Your task to perform on an android device: Empty the shopping cart on costco.com. Search for "apple airpods pro" on costco.com, select the first entry, and add it to the cart. Image 0: 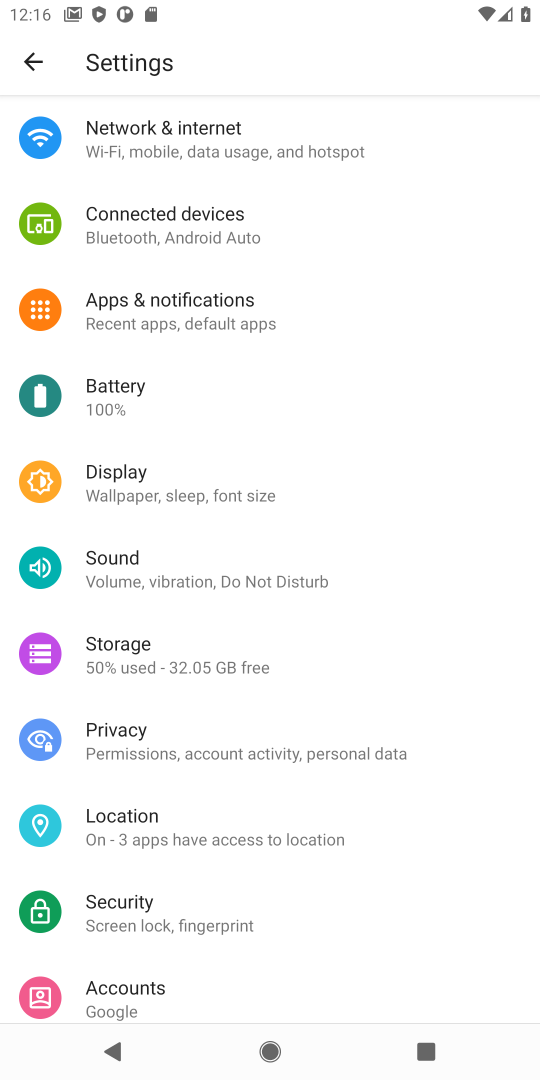
Step 0: press home button
Your task to perform on an android device: Empty the shopping cart on costco.com. Search for "apple airpods pro" on costco.com, select the first entry, and add it to the cart. Image 1: 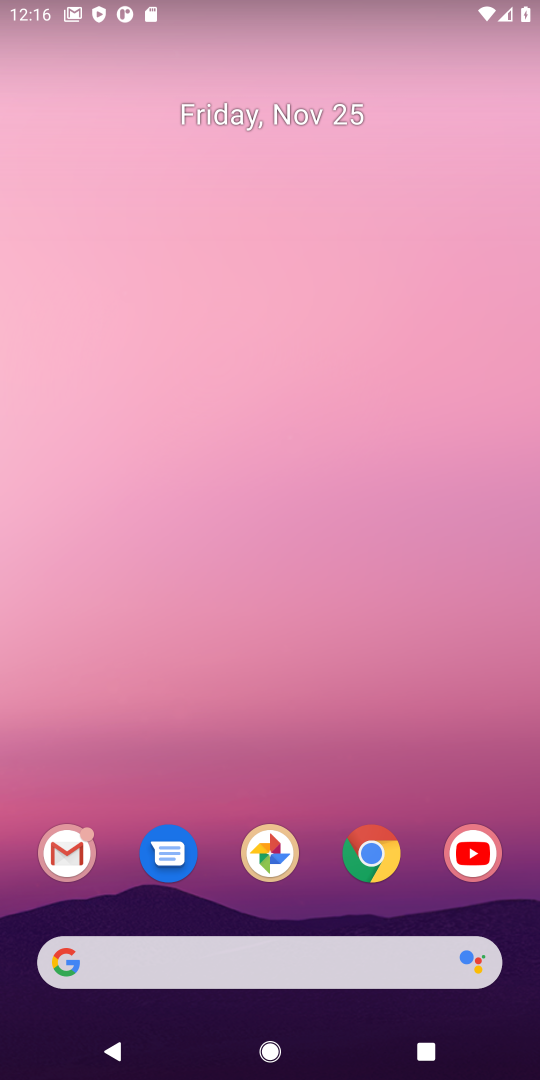
Step 1: click (328, 974)
Your task to perform on an android device: Empty the shopping cart on costco.com. Search for "apple airpods pro" on costco.com, select the first entry, and add it to the cart. Image 2: 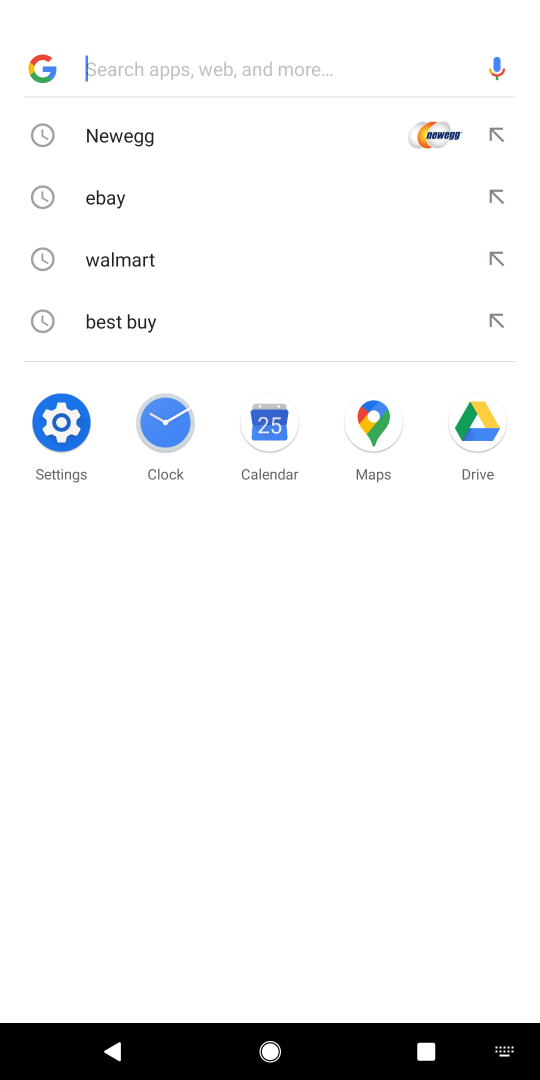
Step 2: type "costco.com"
Your task to perform on an android device: Empty the shopping cart on costco.com. Search for "apple airpods pro" on costco.com, select the first entry, and add it to the cart. Image 3: 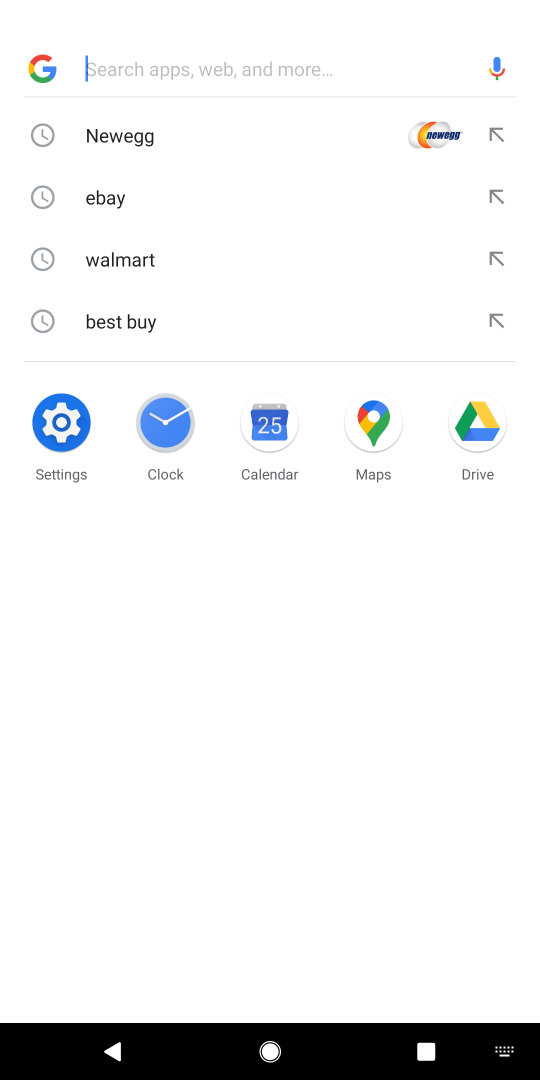
Step 3: click (233, 113)
Your task to perform on an android device: Empty the shopping cart on costco.com. Search for "apple airpods pro" on costco.com, select the first entry, and add it to the cart. Image 4: 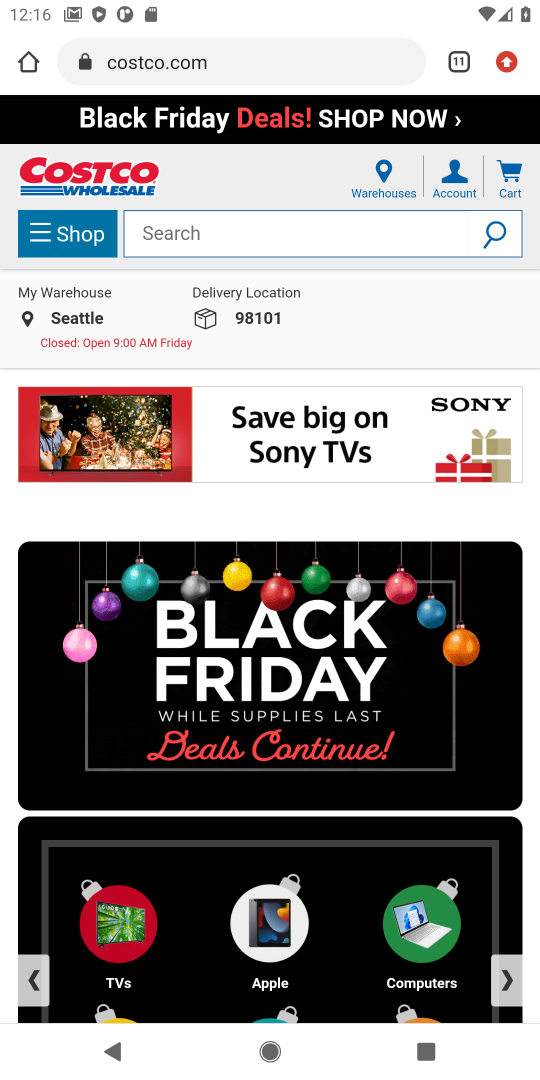
Step 4: click (254, 231)
Your task to perform on an android device: Empty the shopping cart on costco.com. Search for "apple airpods pro" on costco.com, select the first entry, and add it to the cart. Image 5: 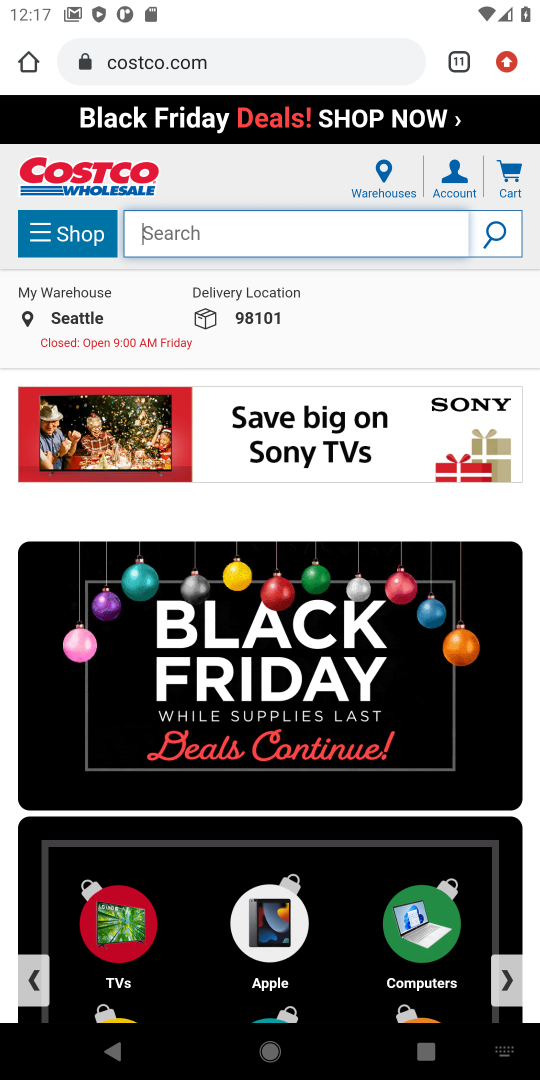
Step 5: type "apple airpod"
Your task to perform on an android device: Empty the shopping cart on costco.com. Search for "apple airpods pro" on costco.com, select the first entry, and add it to the cart. Image 6: 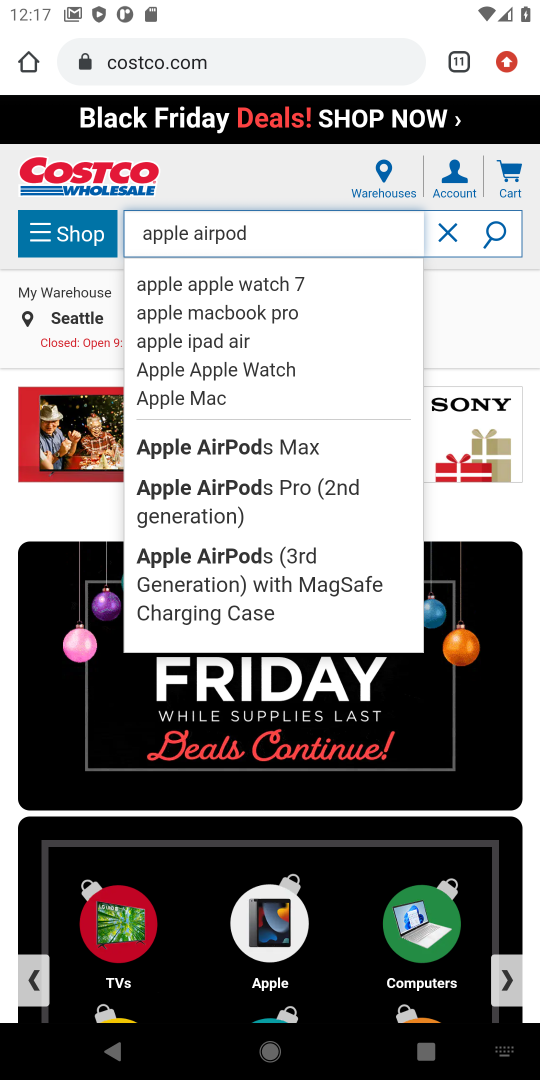
Step 6: click (508, 254)
Your task to perform on an android device: Empty the shopping cart on costco.com. Search for "apple airpods pro" on costco.com, select the first entry, and add it to the cart. Image 7: 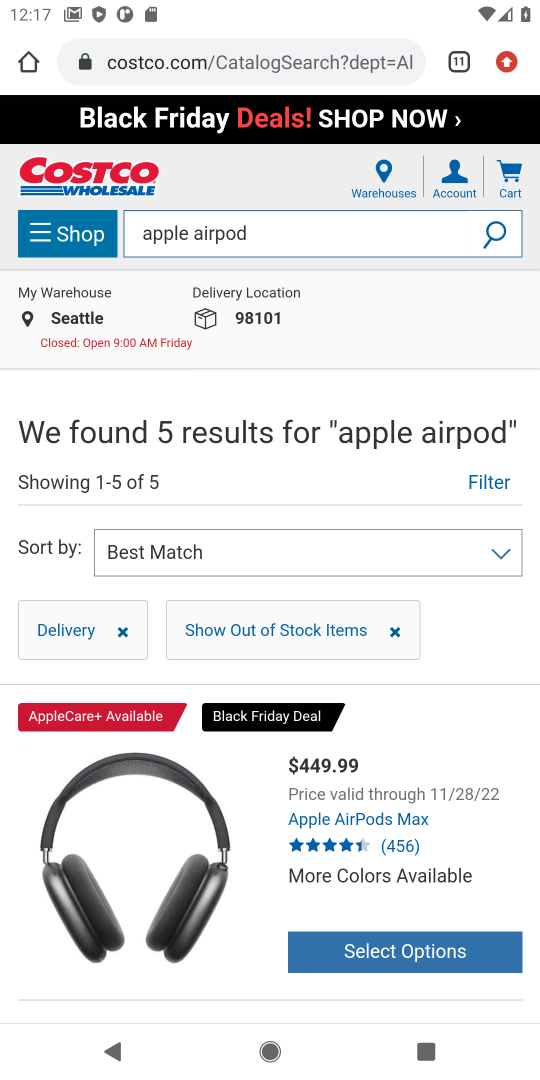
Step 7: drag from (169, 978) to (167, 740)
Your task to perform on an android device: Empty the shopping cart on costco.com. Search for "apple airpods pro" on costco.com, select the first entry, and add it to the cart. Image 8: 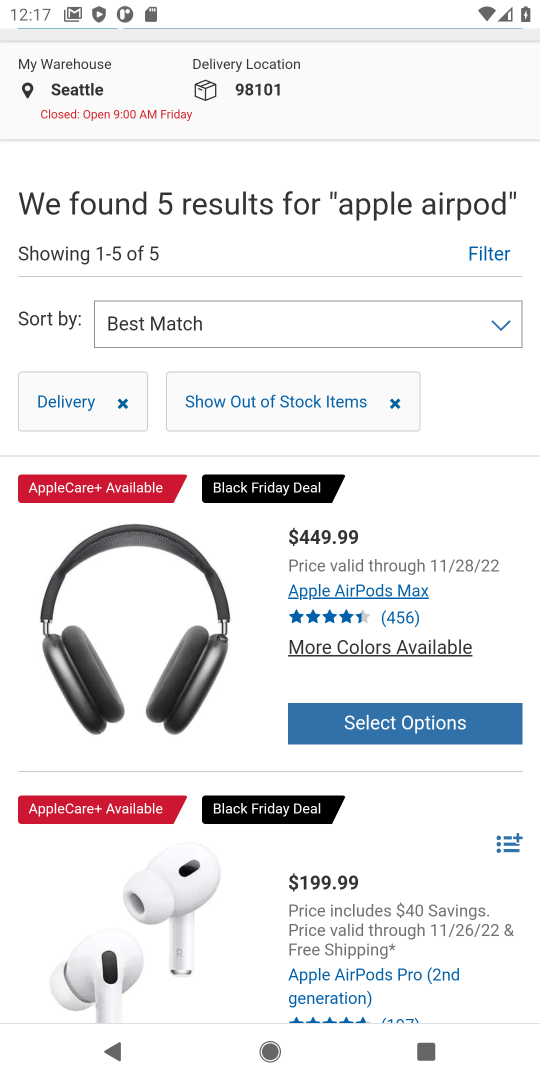
Step 8: click (366, 732)
Your task to perform on an android device: Empty the shopping cart on costco.com. Search for "apple airpods pro" on costco.com, select the first entry, and add it to the cart. Image 9: 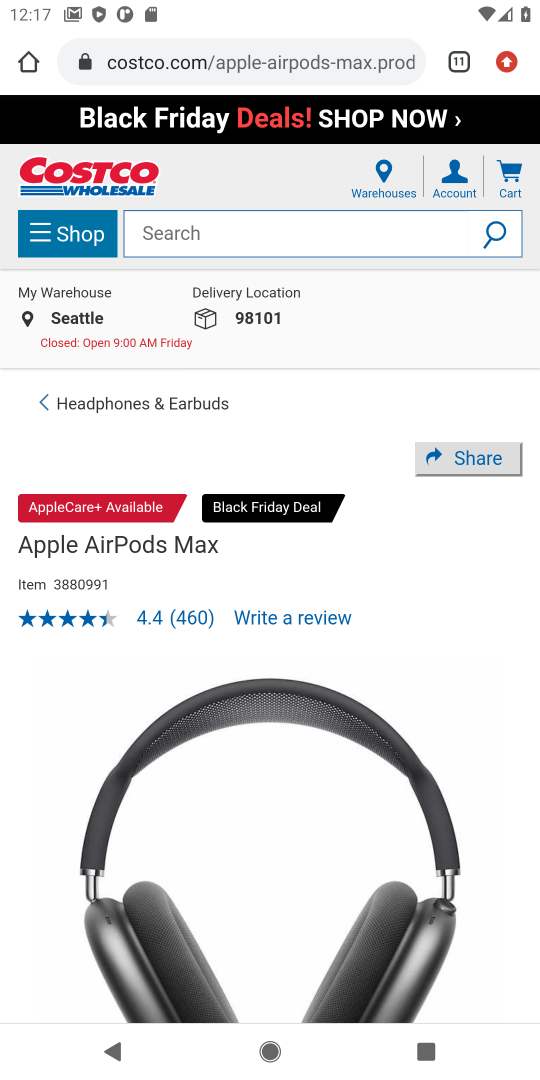
Step 9: drag from (304, 863) to (301, 702)
Your task to perform on an android device: Empty the shopping cart on costco.com. Search for "apple airpods pro" on costco.com, select the first entry, and add it to the cart. Image 10: 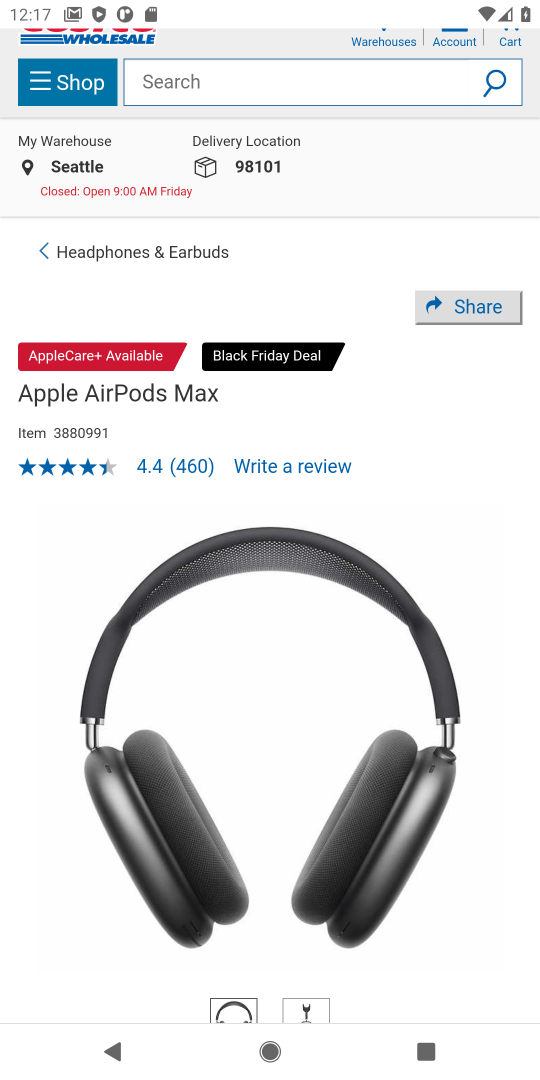
Step 10: drag from (301, 702) to (260, 406)
Your task to perform on an android device: Empty the shopping cart on costco.com. Search for "apple airpods pro" on costco.com, select the first entry, and add it to the cart. Image 11: 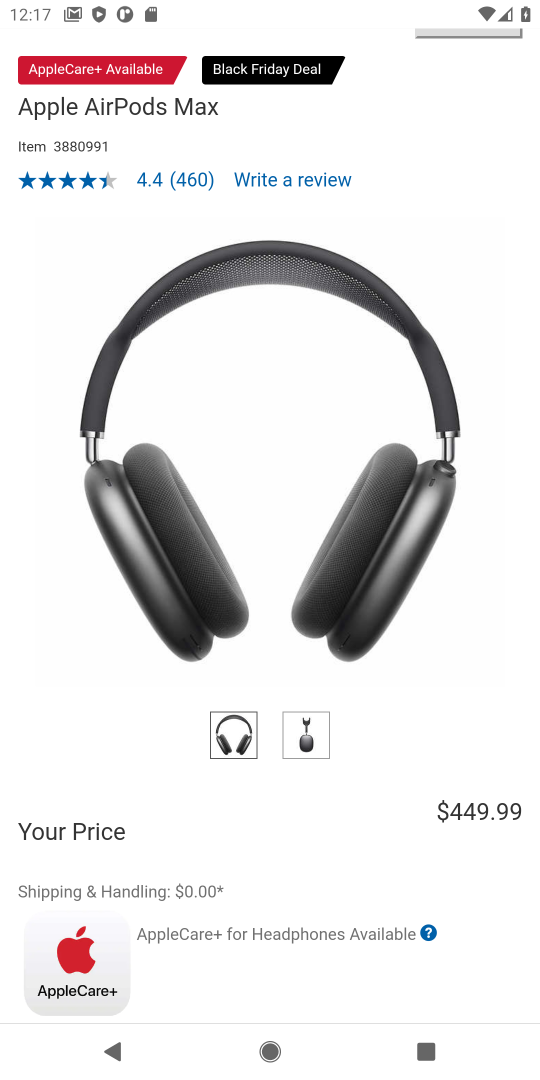
Step 11: drag from (308, 890) to (232, 354)
Your task to perform on an android device: Empty the shopping cart on costco.com. Search for "apple airpods pro" on costco.com, select the first entry, and add it to the cart. Image 12: 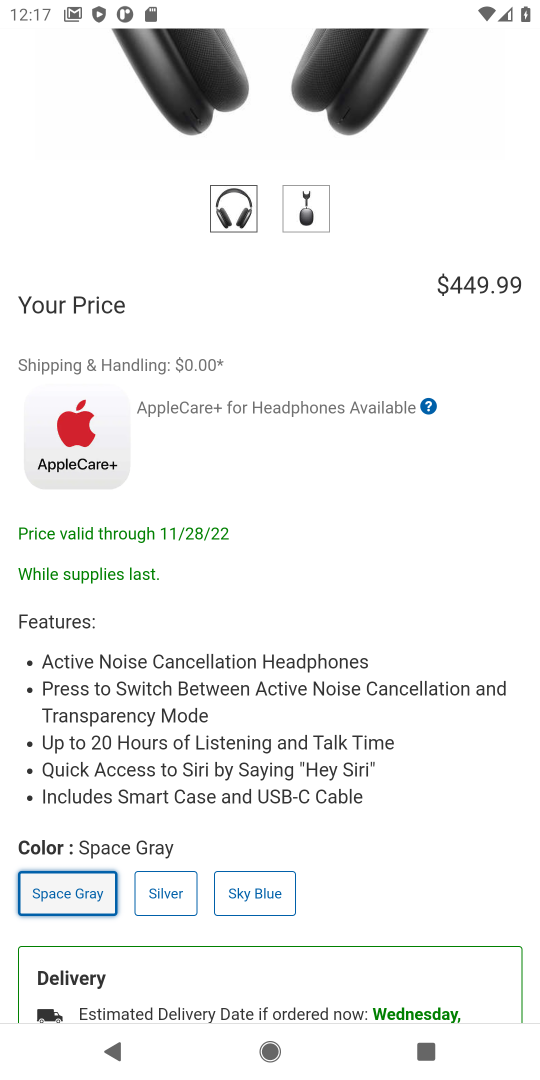
Step 12: drag from (476, 892) to (411, 412)
Your task to perform on an android device: Empty the shopping cart on costco.com. Search for "apple airpods pro" on costco.com, select the first entry, and add it to the cart. Image 13: 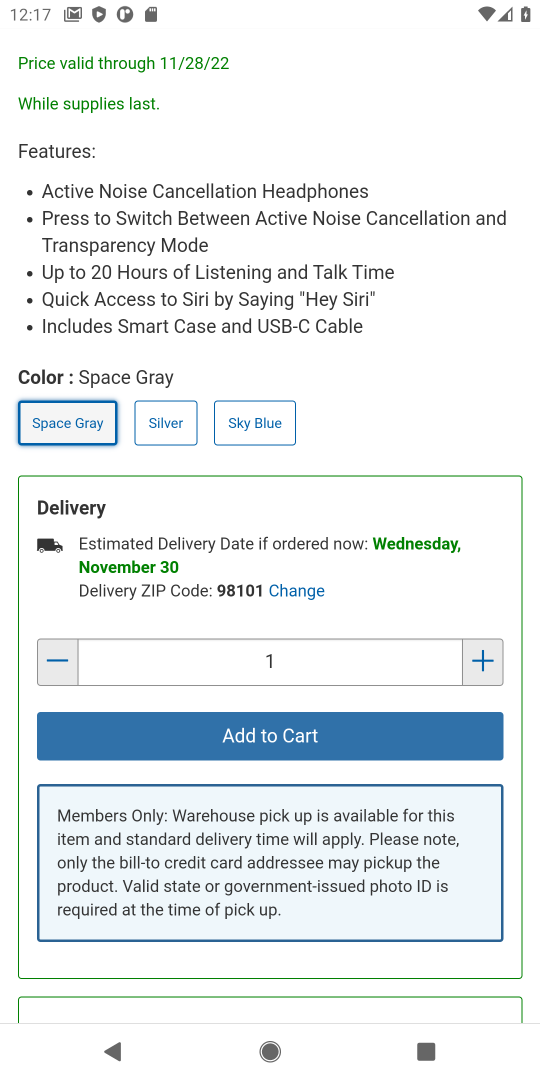
Step 13: click (311, 740)
Your task to perform on an android device: Empty the shopping cart on costco.com. Search for "apple airpods pro" on costco.com, select the first entry, and add it to the cart. Image 14: 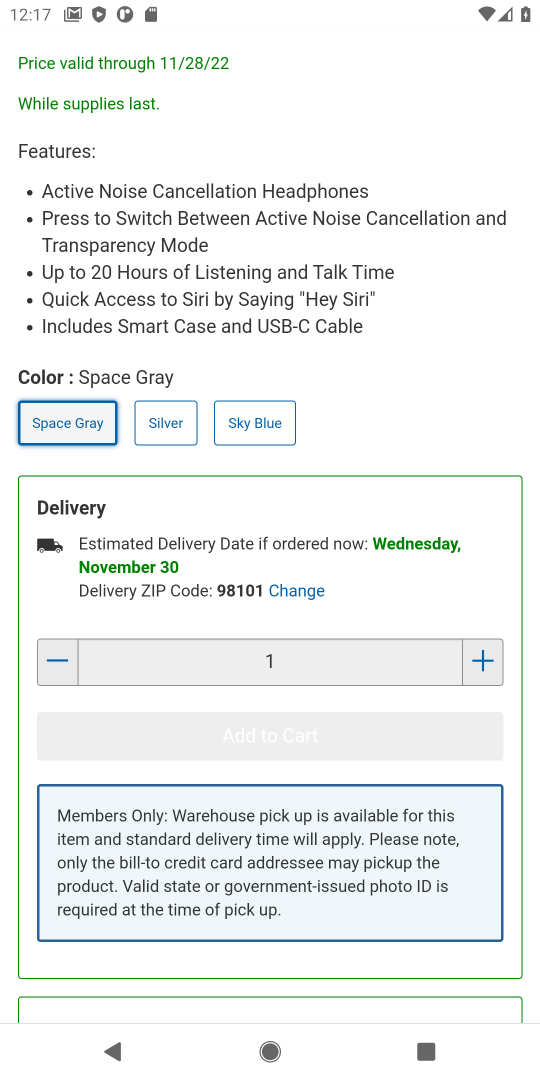
Step 14: task complete